Your task to perform on an android device: add a contact in the contacts app Image 0: 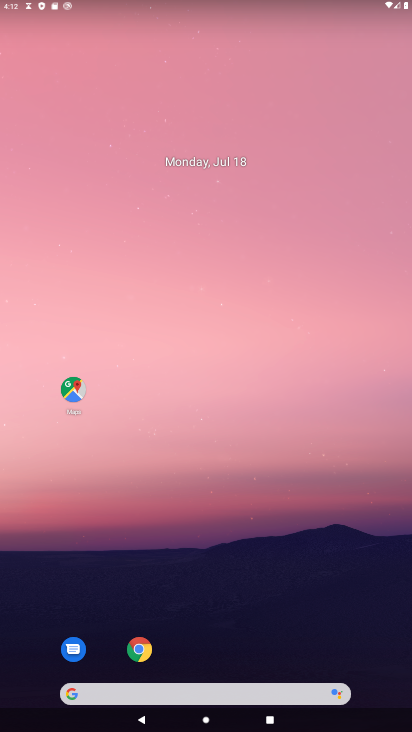
Step 0: press home button
Your task to perform on an android device: add a contact in the contacts app Image 1: 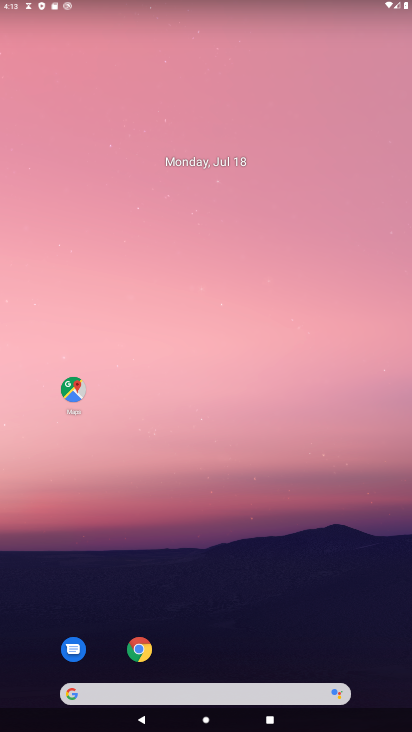
Step 1: drag from (193, 656) to (240, 30)
Your task to perform on an android device: add a contact in the contacts app Image 2: 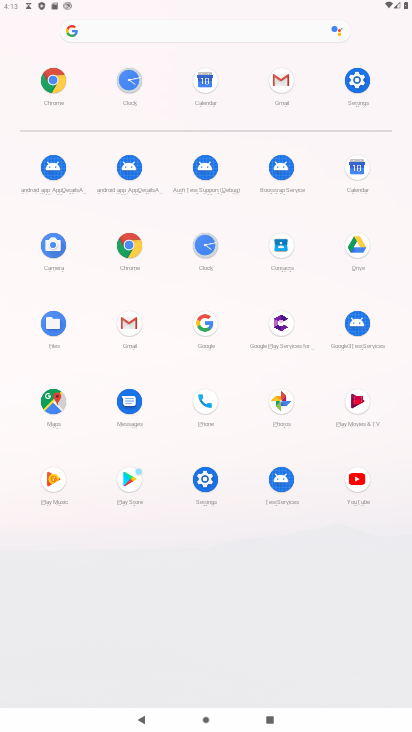
Step 2: click (273, 246)
Your task to perform on an android device: add a contact in the contacts app Image 3: 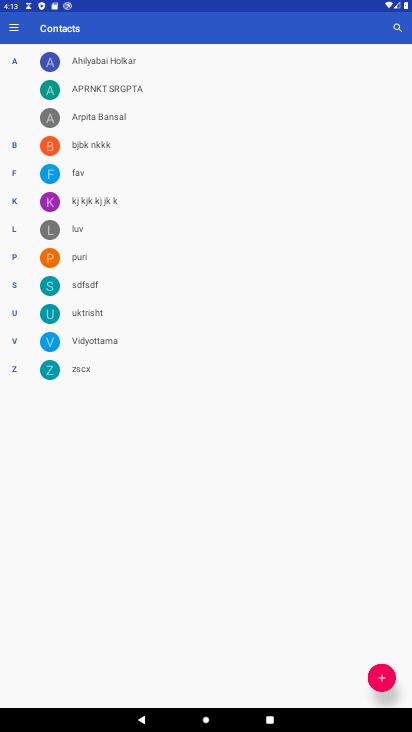
Step 3: click (387, 681)
Your task to perform on an android device: add a contact in the contacts app Image 4: 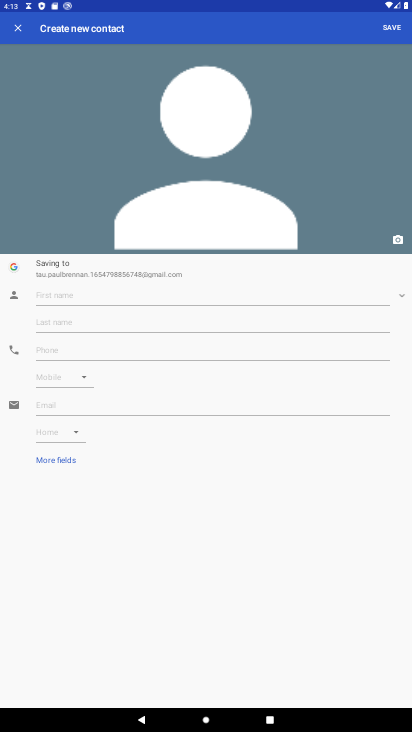
Step 4: click (83, 296)
Your task to perform on an android device: add a contact in the contacts app Image 5: 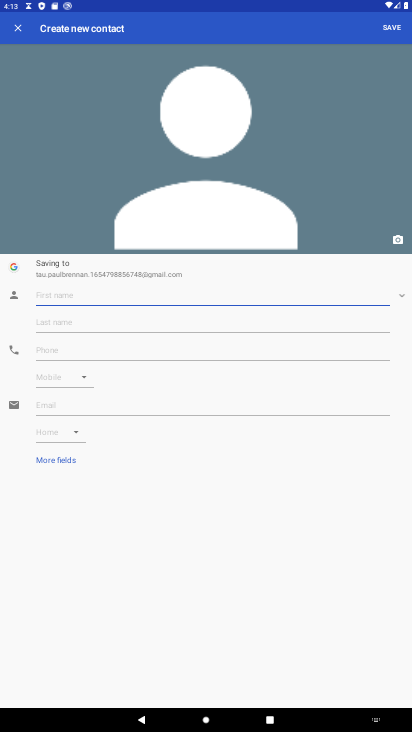
Step 5: type "gghghg"
Your task to perform on an android device: add a contact in the contacts app Image 6: 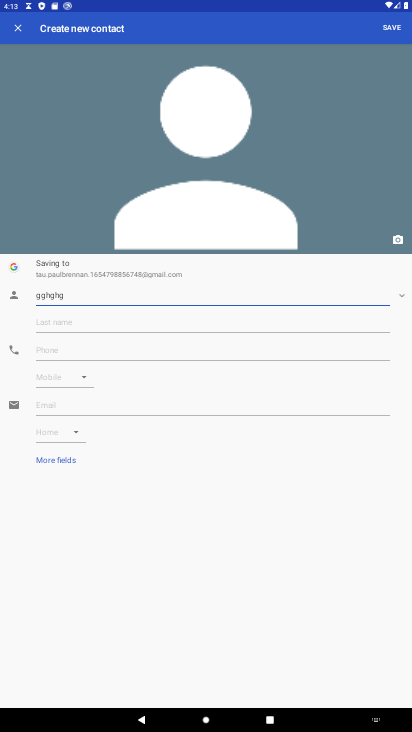
Step 6: click (57, 354)
Your task to perform on an android device: add a contact in the contacts app Image 7: 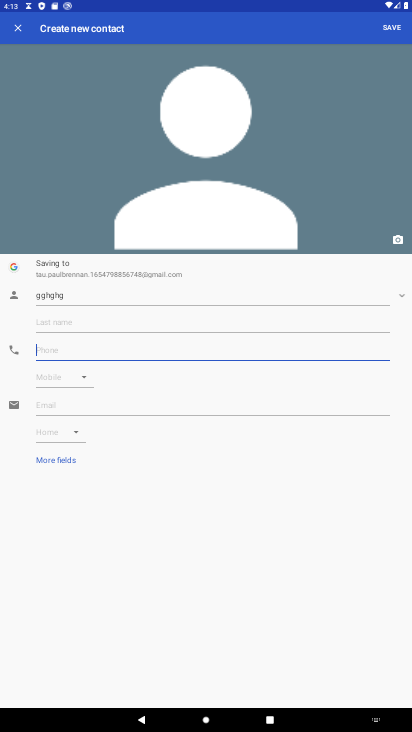
Step 7: type "666666"
Your task to perform on an android device: add a contact in the contacts app Image 8: 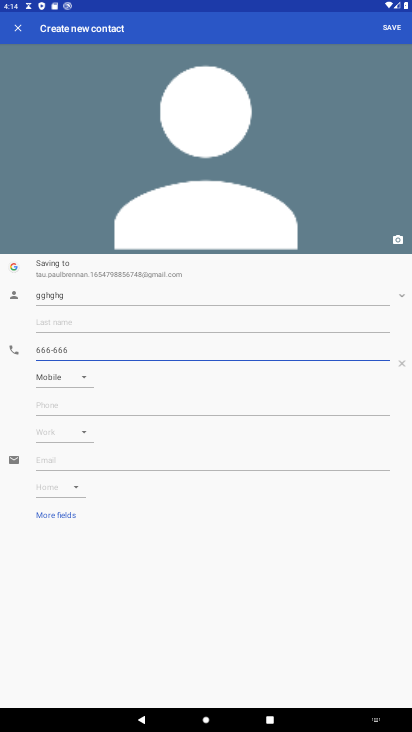
Step 8: click (393, 27)
Your task to perform on an android device: add a contact in the contacts app Image 9: 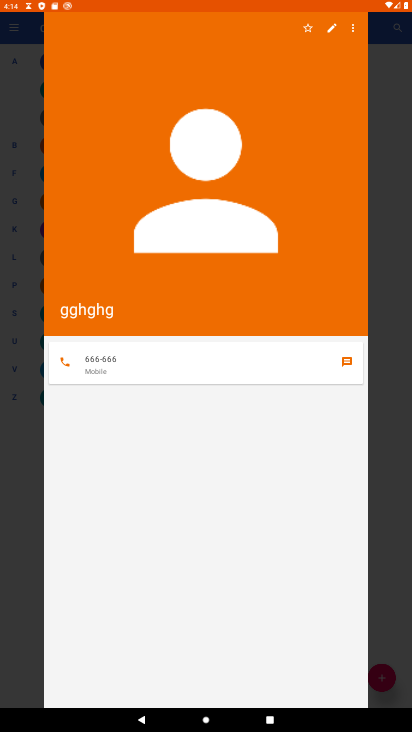
Step 9: task complete